Your task to perform on an android device: Search for panasonic triple a on walmart.com, select the first entry, and add it to the cart. Image 0: 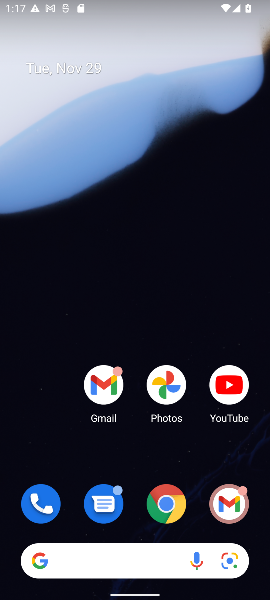
Step 0: click (165, 504)
Your task to perform on an android device: Search for panasonic triple a on walmart.com, select the first entry, and add it to the cart. Image 1: 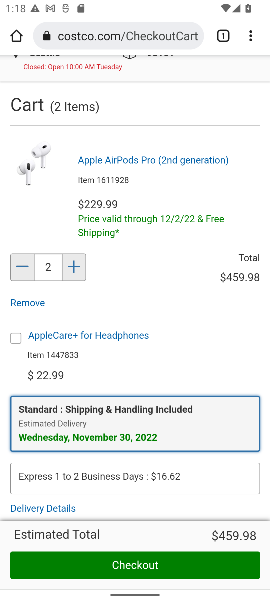
Step 1: click (120, 36)
Your task to perform on an android device: Search for panasonic triple a on walmart.com, select the first entry, and add it to the cart. Image 2: 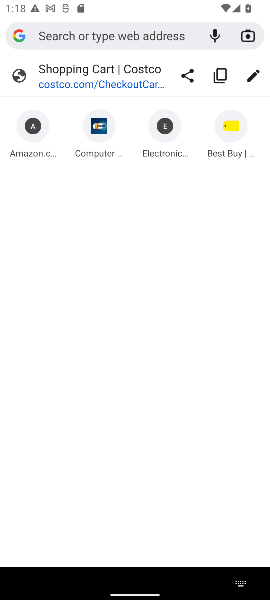
Step 2: type "walmart.com"
Your task to perform on an android device: Search for panasonic triple a on walmart.com, select the first entry, and add it to the cart. Image 3: 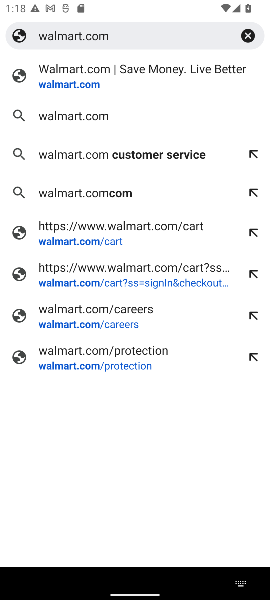
Step 3: click (58, 84)
Your task to perform on an android device: Search for panasonic triple a on walmart.com, select the first entry, and add it to the cart. Image 4: 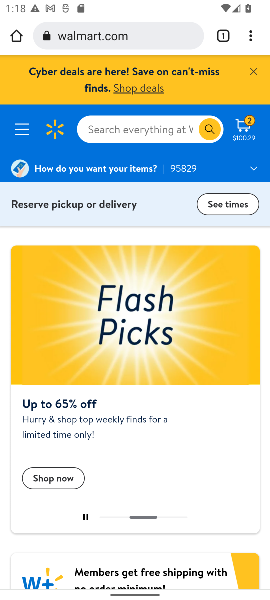
Step 4: click (101, 132)
Your task to perform on an android device: Search for panasonic triple a on walmart.com, select the first entry, and add it to the cart. Image 5: 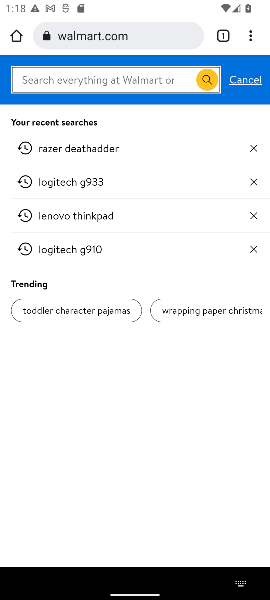
Step 5: type "panasonic triple a"
Your task to perform on an android device: Search for panasonic triple a on walmart.com, select the first entry, and add it to the cart. Image 6: 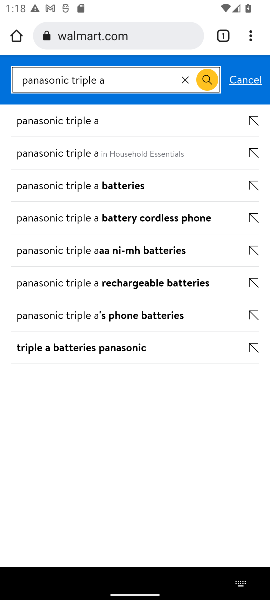
Step 6: click (49, 124)
Your task to perform on an android device: Search for panasonic triple a on walmart.com, select the first entry, and add it to the cart. Image 7: 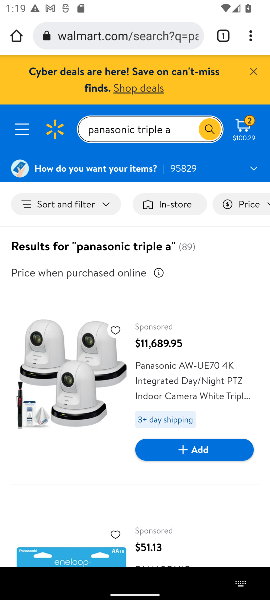
Step 7: task complete